Your task to perform on an android device: open app "Adobe Acrobat Reader: Edit PDF" (install if not already installed) Image 0: 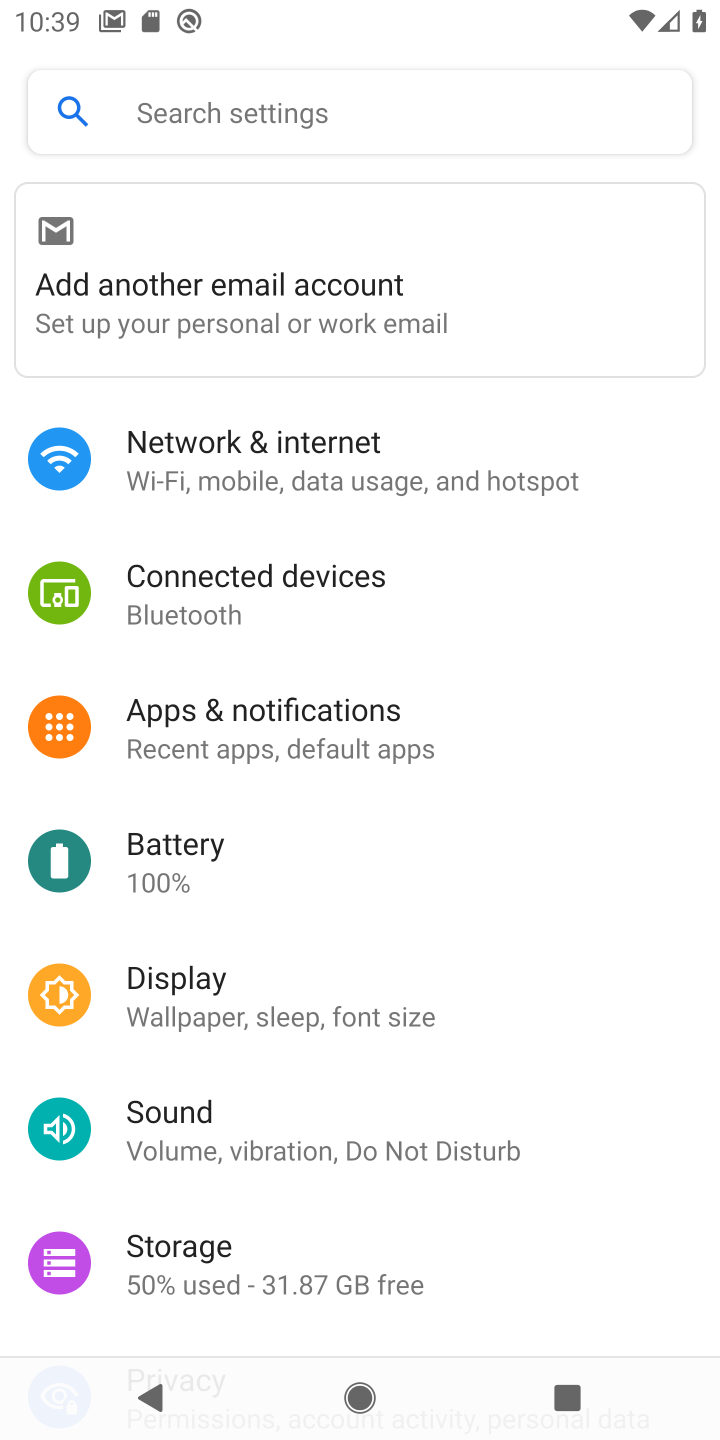
Step 0: press home button
Your task to perform on an android device: open app "Adobe Acrobat Reader: Edit PDF" (install if not already installed) Image 1: 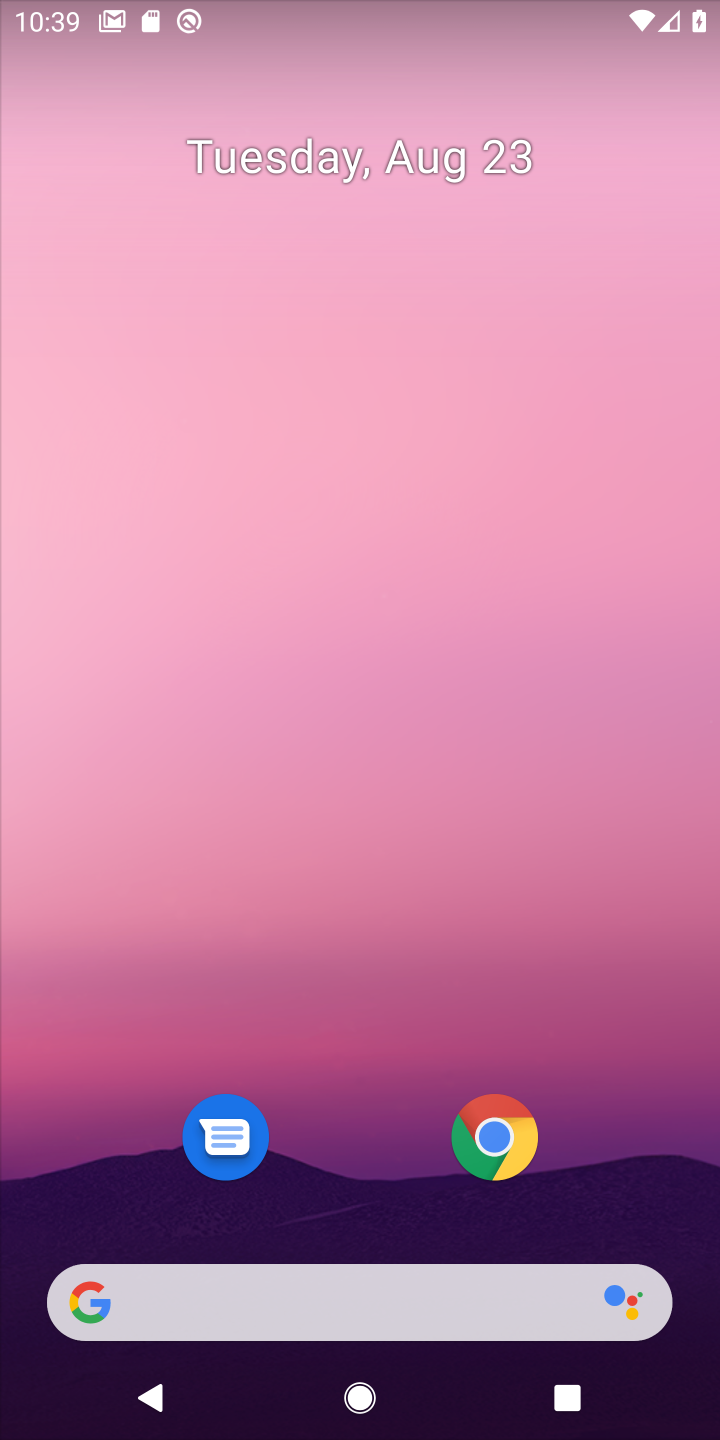
Step 1: drag from (388, 1240) to (391, 468)
Your task to perform on an android device: open app "Adobe Acrobat Reader: Edit PDF" (install if not already installed) Image 2: 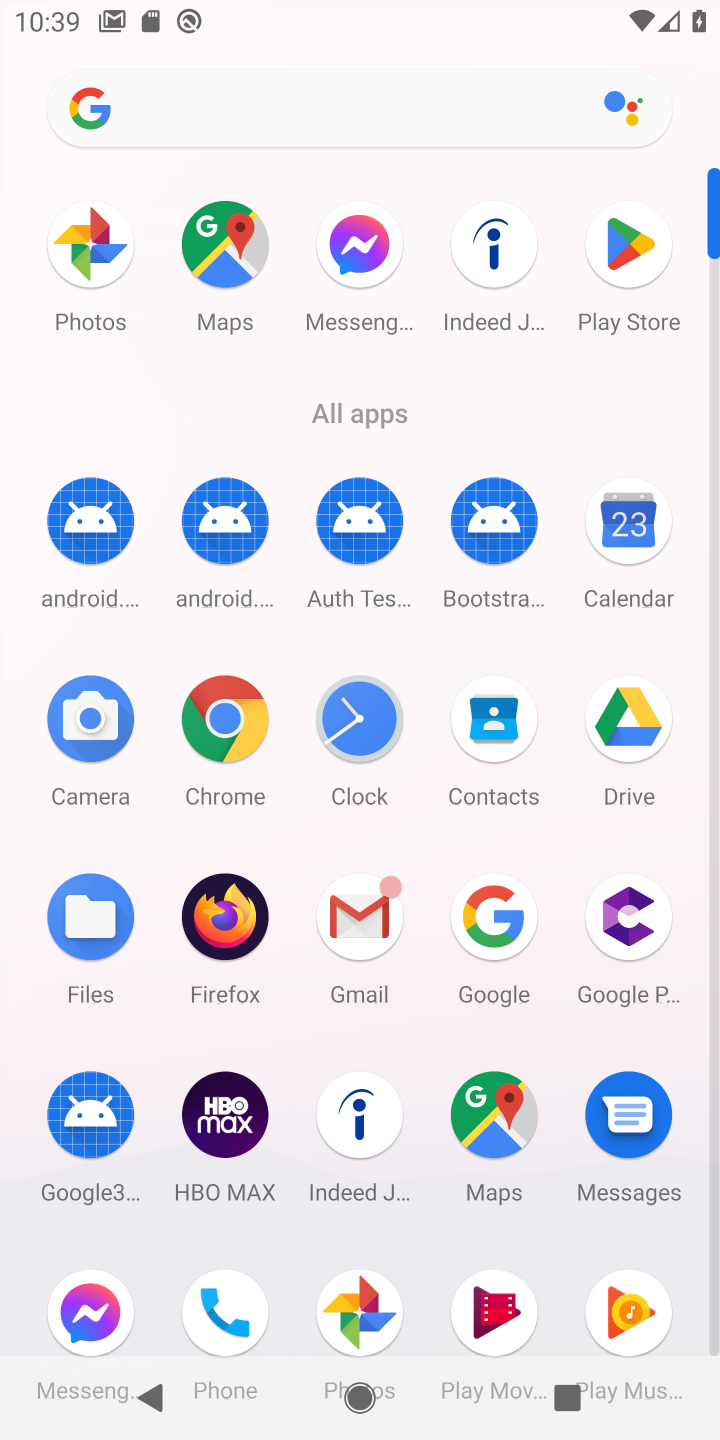
Step 2: click (654, 279)
Your task to perform on an android device: open app "Adobe Acrobat Reader: Edit PDF" (install if not already installed) Image 3: 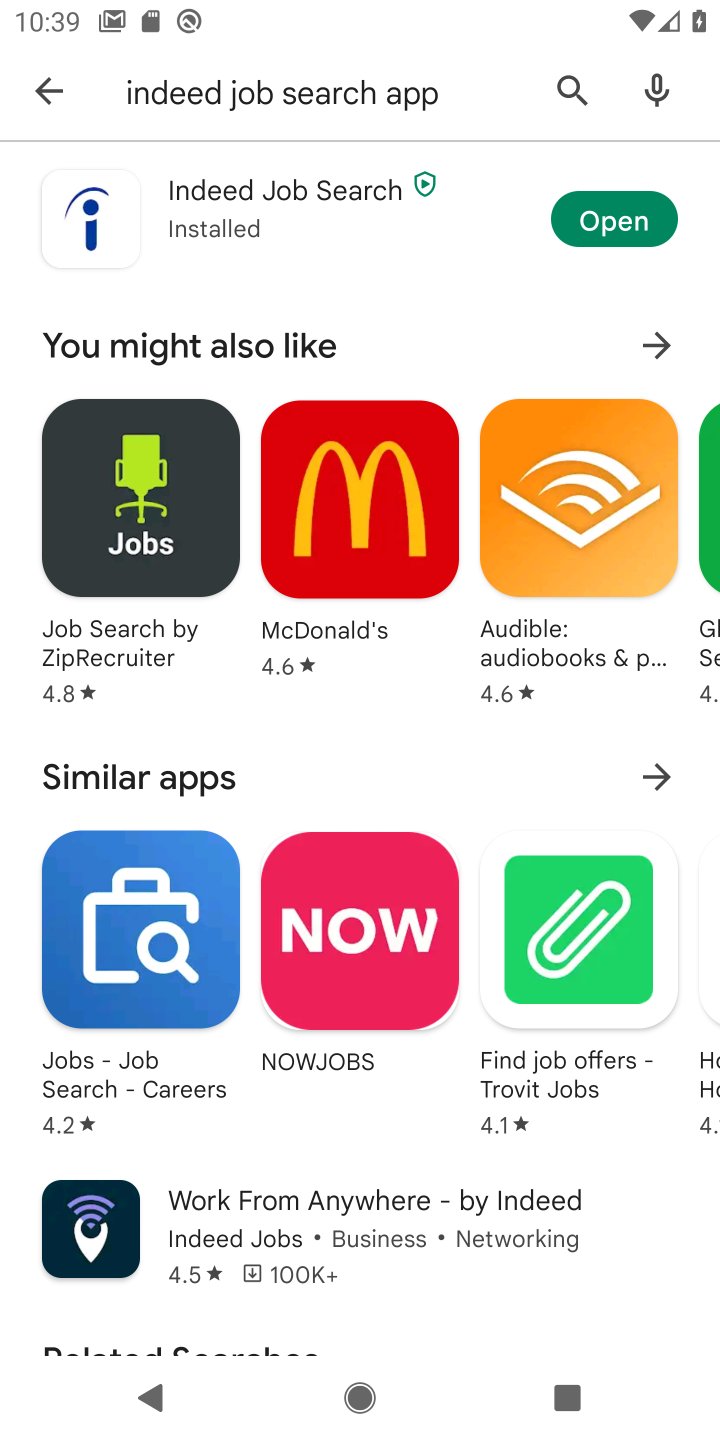
Step 3: click (319, 80)
Your task to perform on an android device: open app "Adobe Acrobat Reader: Edit PDF" (install if not already installed) Image 4: 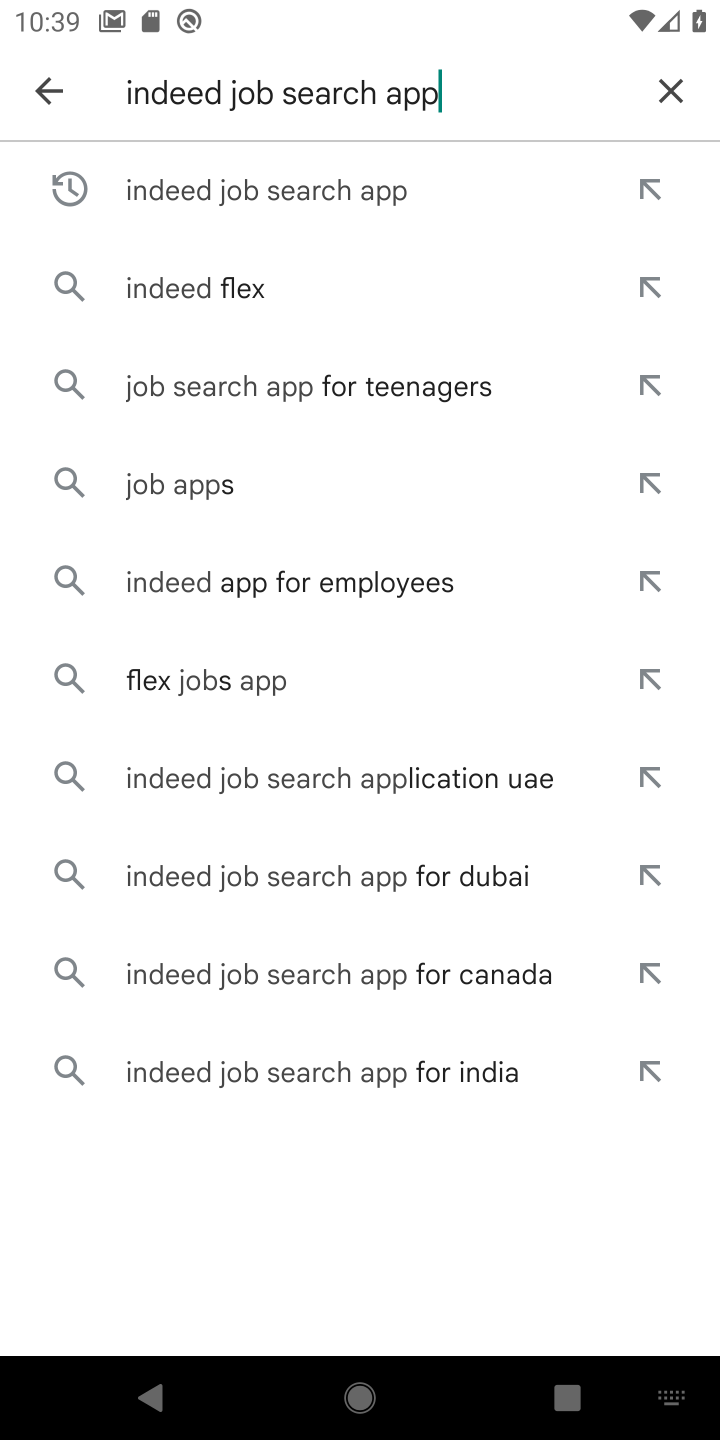
Step 4: click (656, 83)
Your task to perform on an android device: open app "Adobe Acrobat Reader: Edit PDF" (install if not already installed) Image 5: 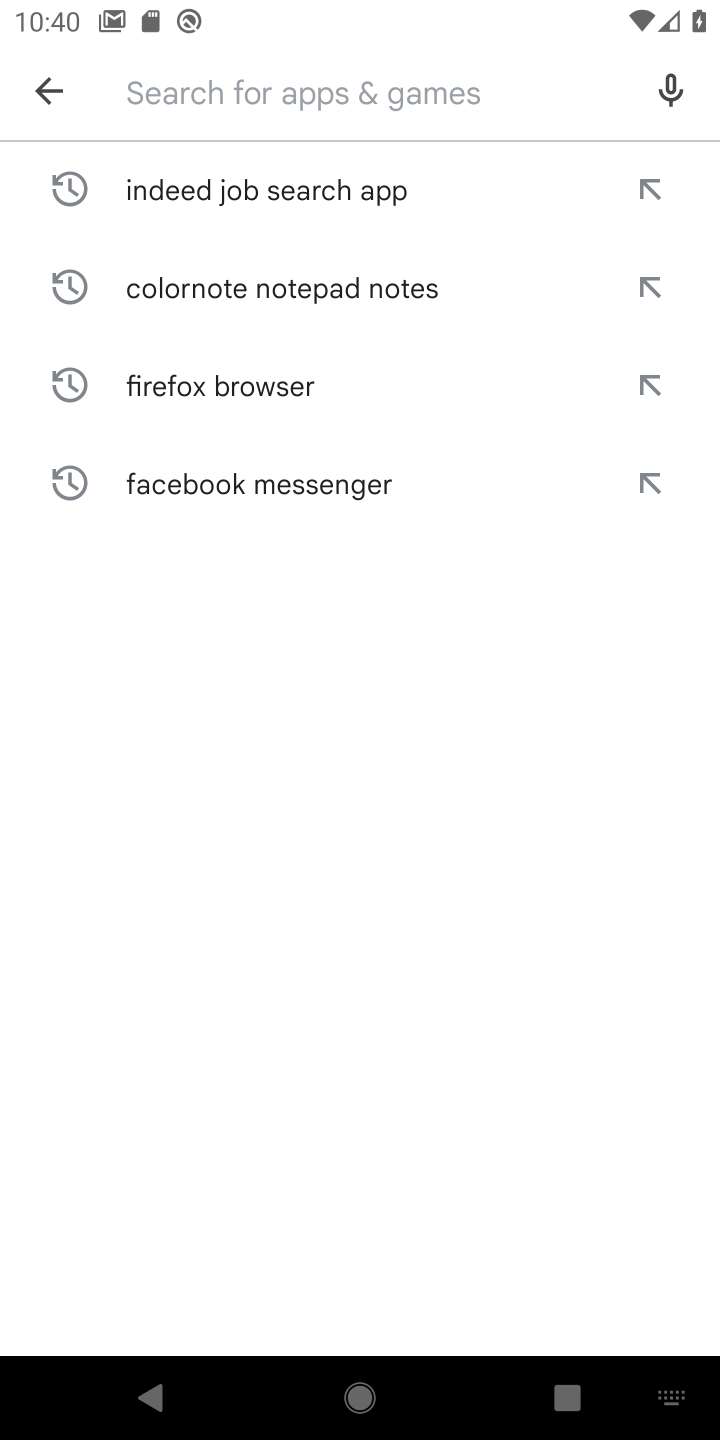
Step 5: type "Adobe acrobat reader"
Your task to perform on an android device: open app "Adobe Acrobat Reader: Edit PDF" (install if not already installed) Image 6: 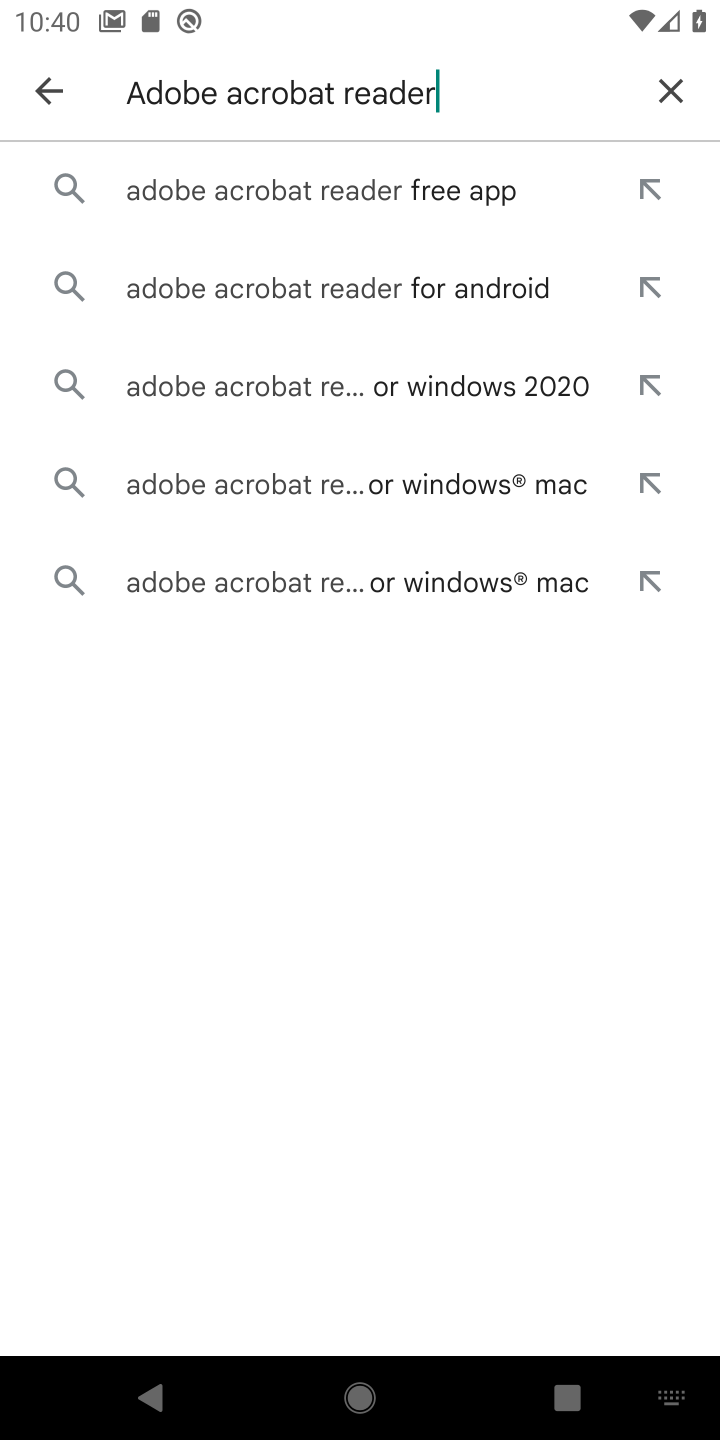
Step 6: click (342, 213)
Your task to perform on an android device: open app "Adobe Acrobat Reader: Edit PDF" (install if not already installed) Image 7: 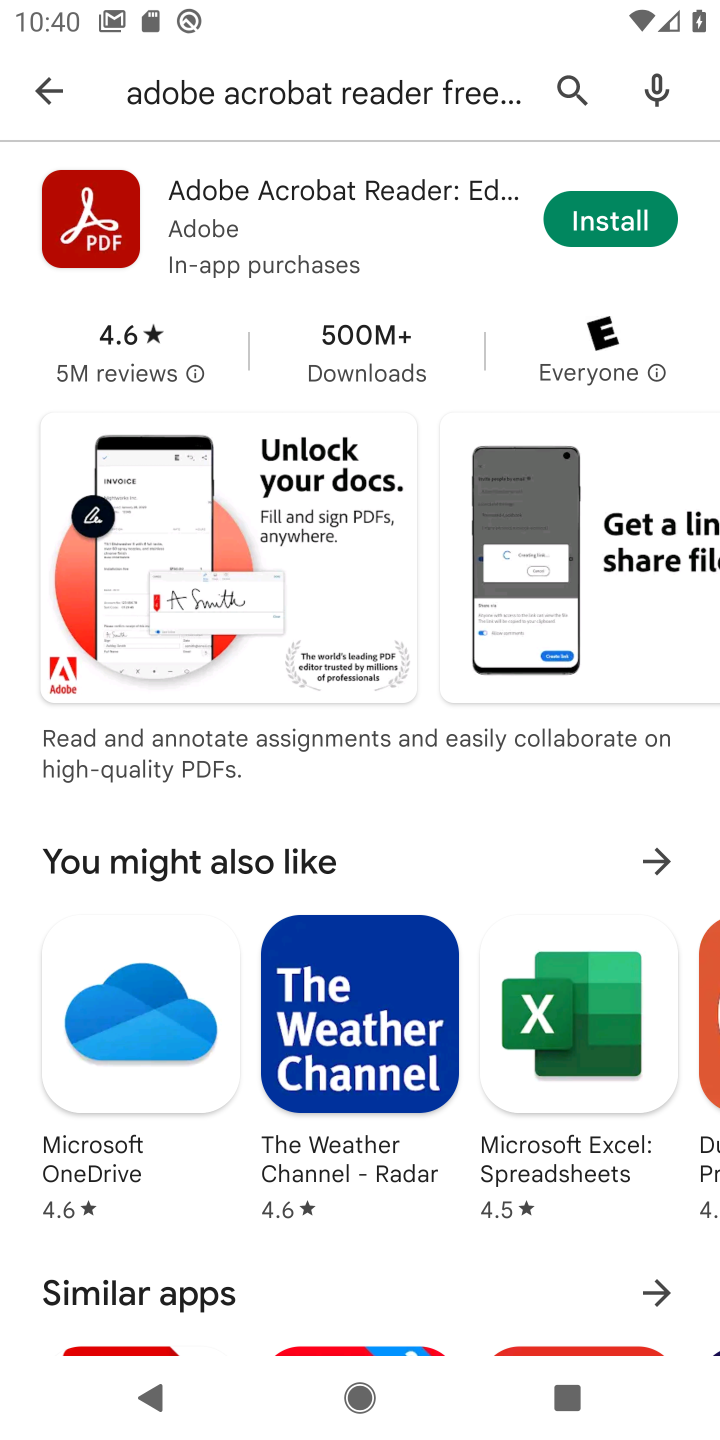
Step 7: click (628, 223)
Your task to perform on an android device: open app "Adobe Acrobat Reader: Edit PDF" (install if not already installed) Image 8: 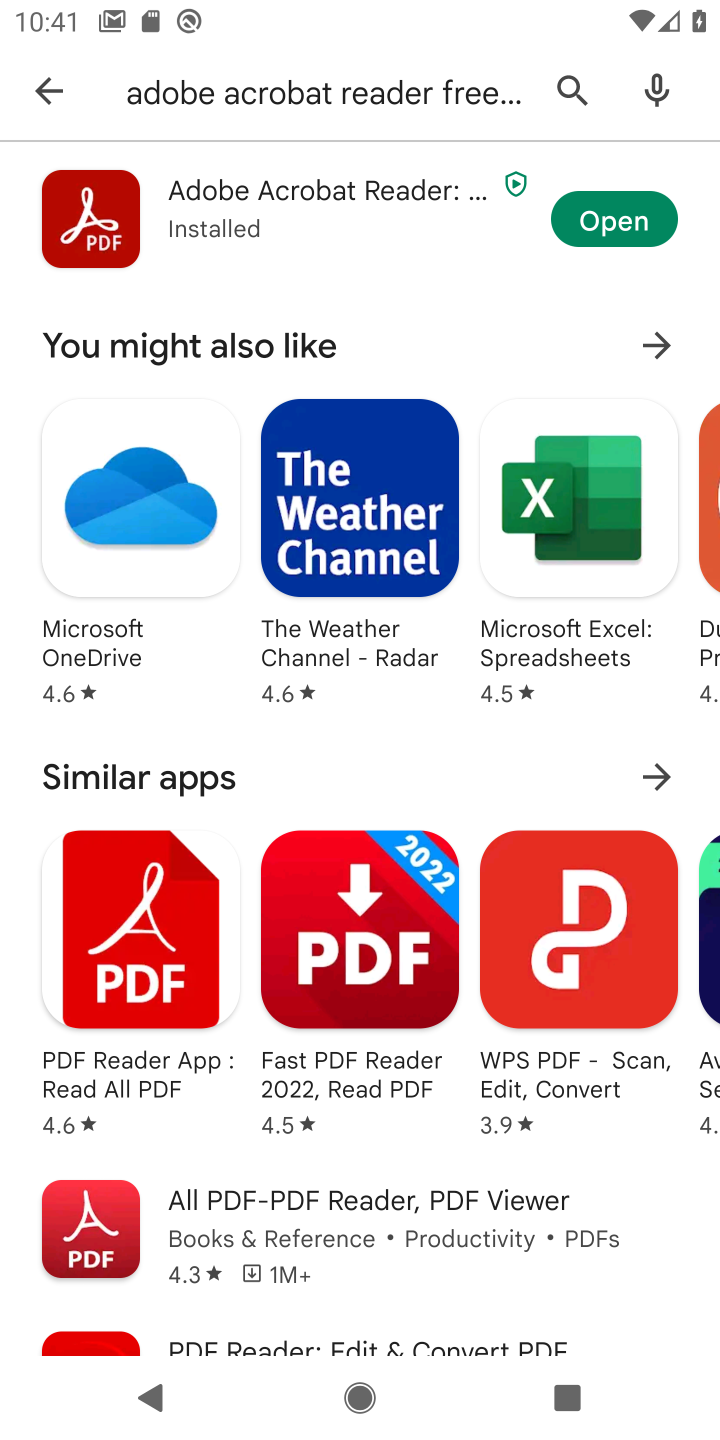
Step 8: click (650, 217)
Your task to perform on an android device: open app "Adobe Acrobat Reader: Edit PDF" (install if not already installed) Image 9: 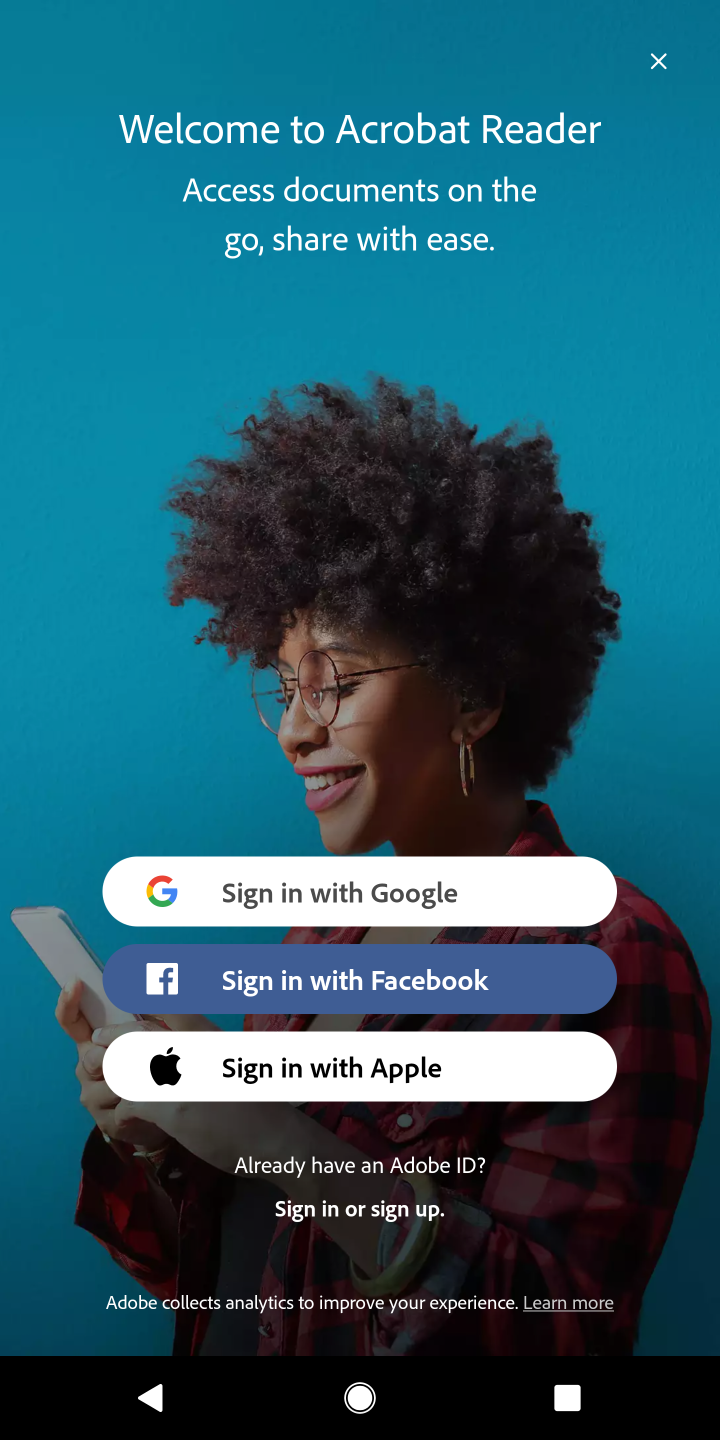
Step 9: task complete